Your task to perform on an android device: toggle airplane mode Image 0: 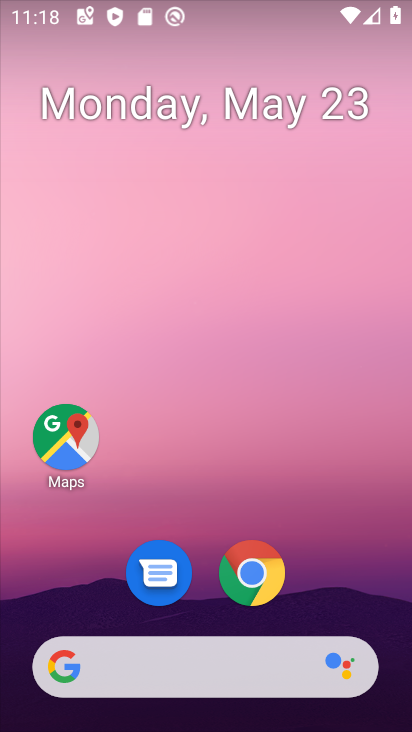
Step 0: drag from (388, 596) to (364, 123)
Your task to perform on an android device: toggle airplane mode Image 1: 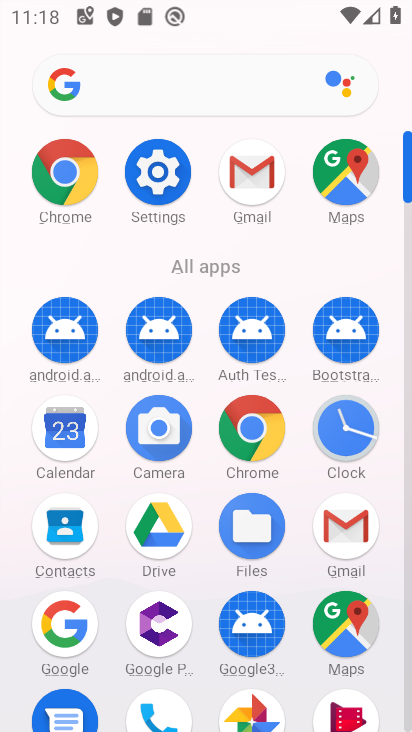
Step 1: click (171, 184)
Your task to perform on an android device: toggle airplane mode Image 2: 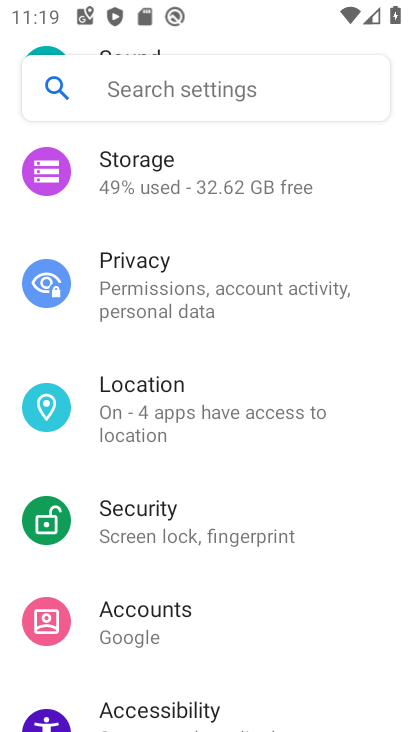
Step 2: drag from (356, 216) to (340, 387)
Your task to perform on an android device: toggle airplane mode Image 3: 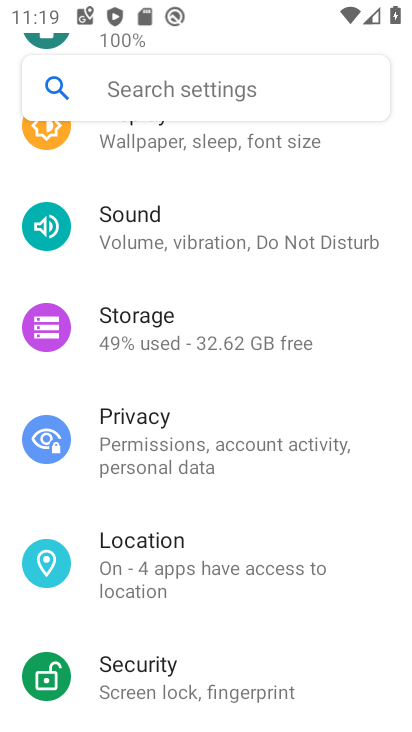
Step 3: drag from (357, 298) to (345, 544)
Your task to perform on an android device: toggle airplane mode Image 4: 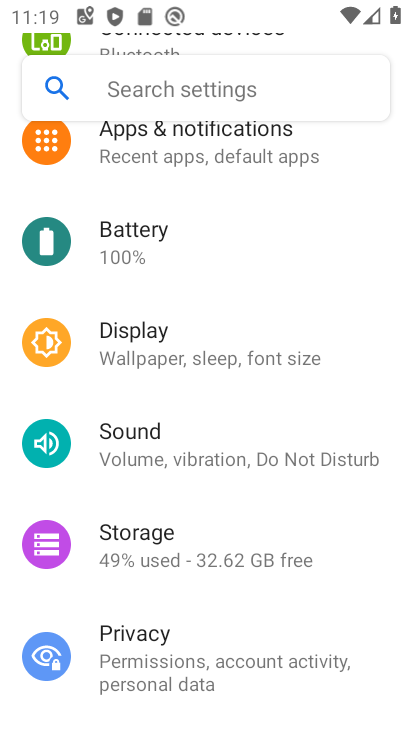
Step 4: drag from (348, 222) to (346, 474)
Your task to perform on an android device: toggle airplane mode Image 5: 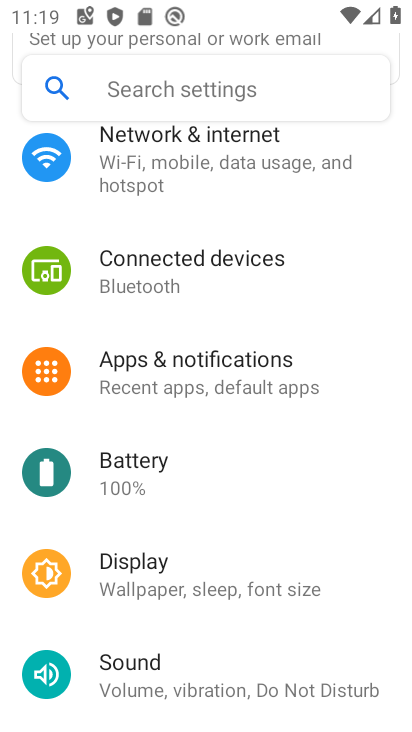
Step 5: drag from (354, 196) to (353, 412)
Your task to perform on an android device: toggle airplane mode Image 6: 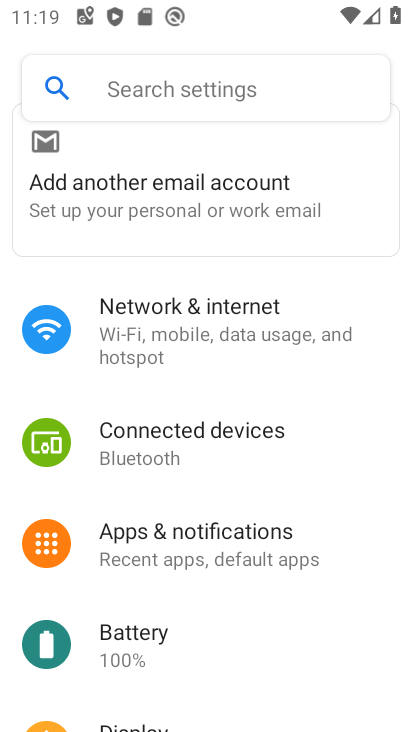
Step 6: click (305, 348)
Your task to perform on an android device: toggle airplane mode Image 7: 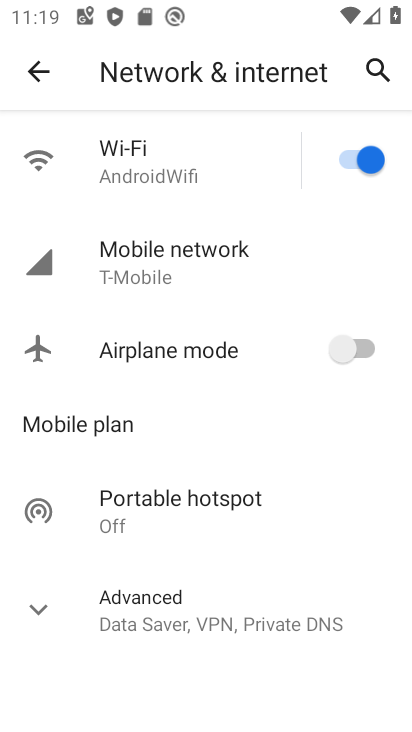
Step 7: click (353, 362)
Your task to perform on an android device: toggle airplane mode Image 8: 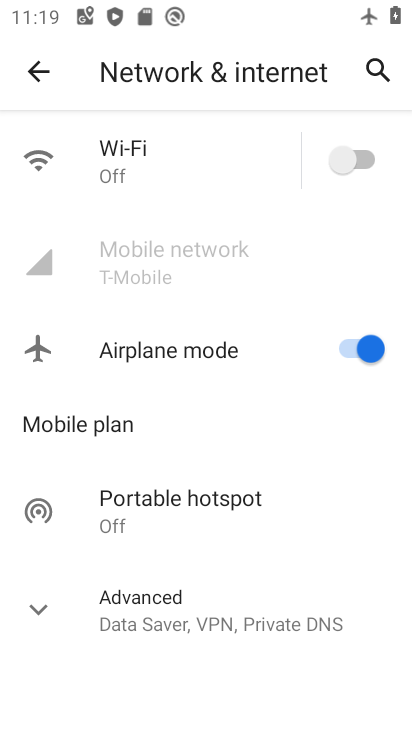
Step 8: task complete